Your task to perform on an android device: Find coffee shops on Maps Image 0: 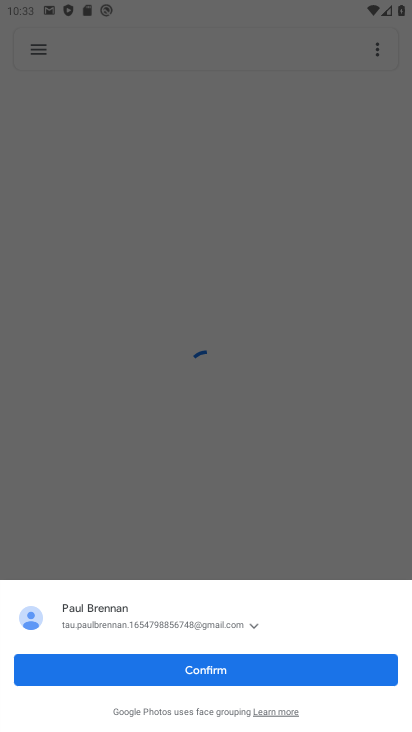
Step 0: press home button
Your task to perform on an android device: Find coffee shops on Maps Image 1: 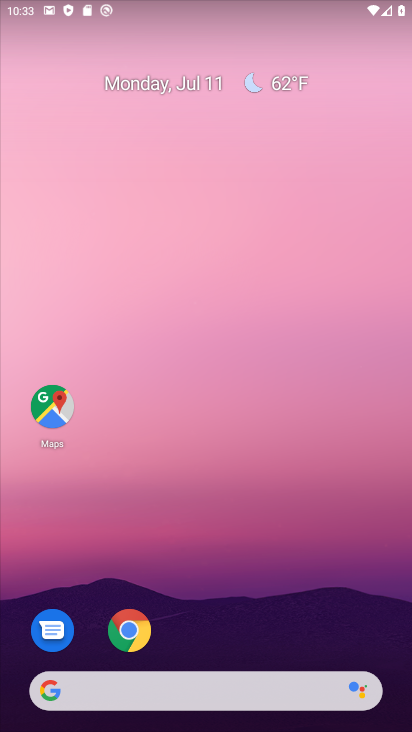
Step 1: click (56, 410)
Your task to perform on an android device: Find coffee shops on Maps Image 2: 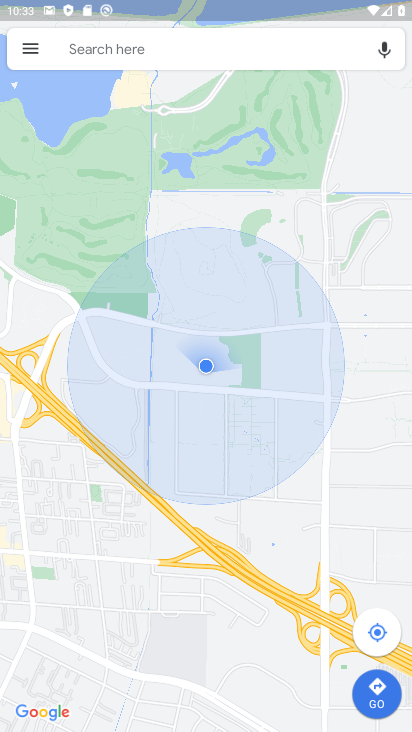
Step 2: click (122, 45)
Your task to perform on an android device: Find coffee shops on Maps Image 3: 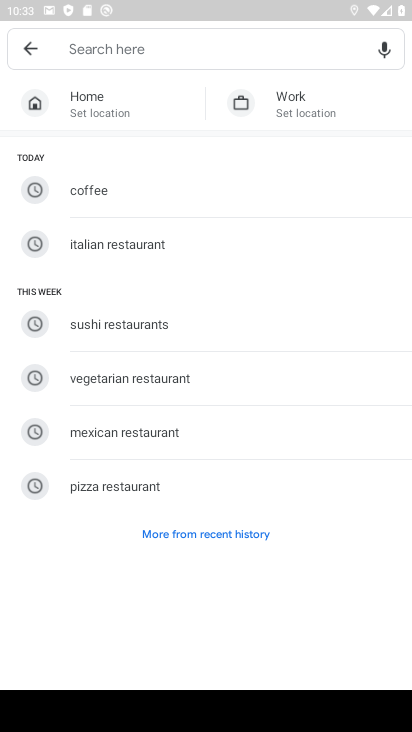
Step 3: click (91, 190)
Your task to perform on an android device: Find coffee shops on Maps Image 4: 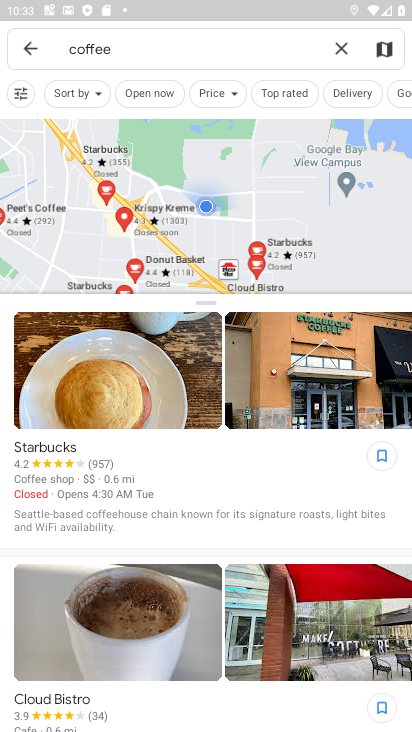
Step 4: task complete